Your task to perform on an android device: Go to sound settings Image 0: 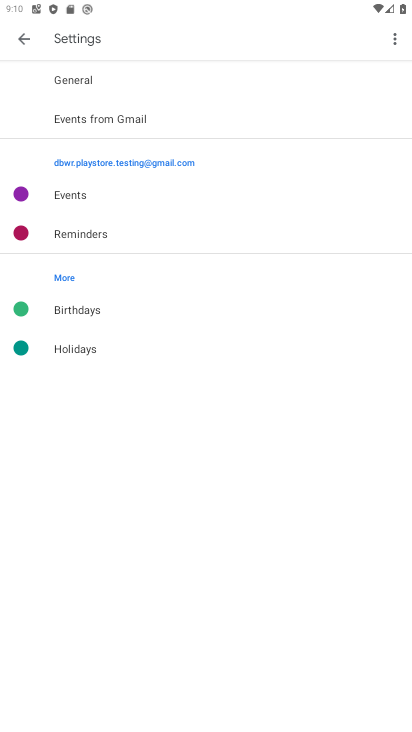
Step 0: press home button
Your task to perform on an android device: Go to sound settings Image 1: 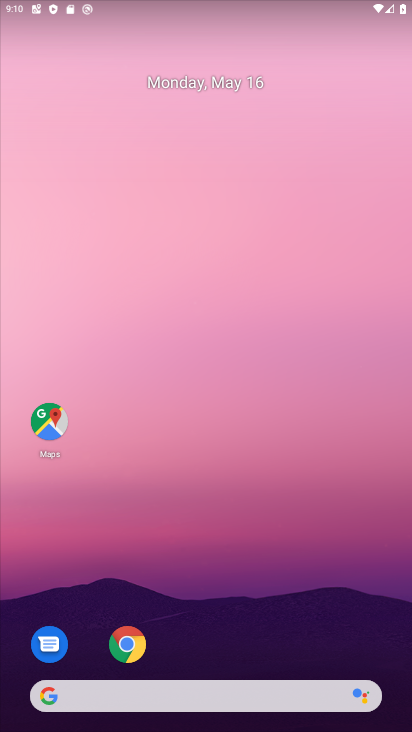
Step 1: drag from (108, 621) to (115, 70)
Your task to perform on an android device: Go to sound settings Image 2: 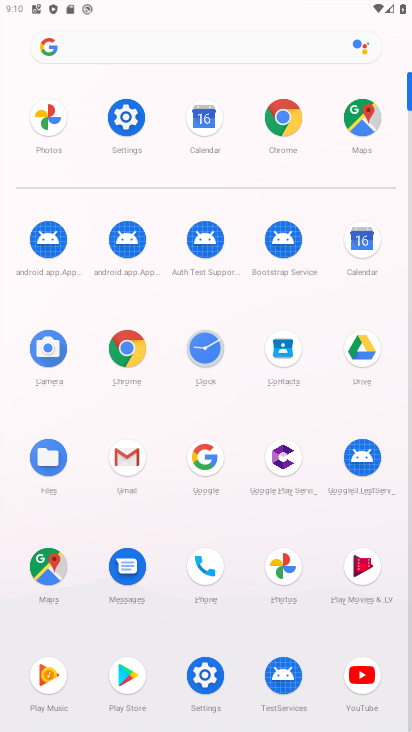
Step 2: click (123, 121)
Your task to perform on an android device: Go to sound settings Image 3: 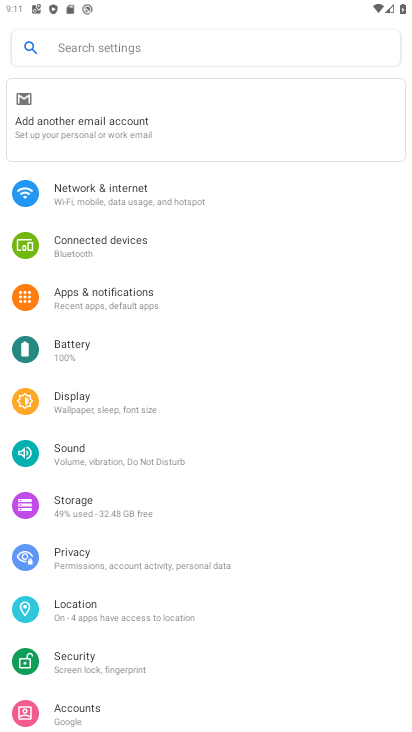
Step 3: click (113, 458)
Your task to perform on an android device: Go to sound settings Image 4: 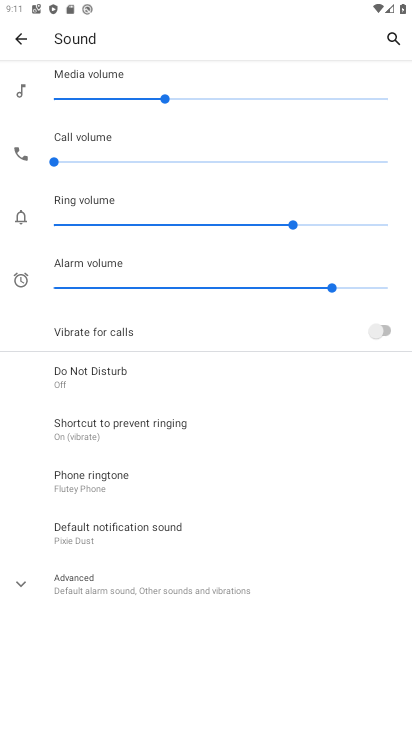
Step 4: task complete